Your task to perform on an android device: Search for vegetarian restaurants on Maps Image 0: 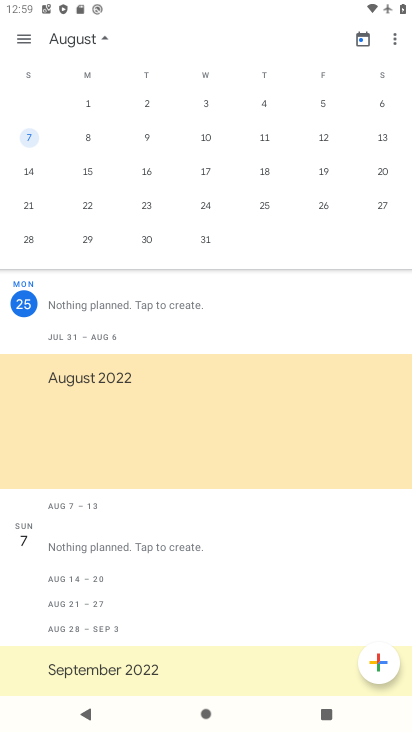
Step 0: press home button
Your task to perform on an android device: Search for vegetarian restaurants on Maps Image 1: 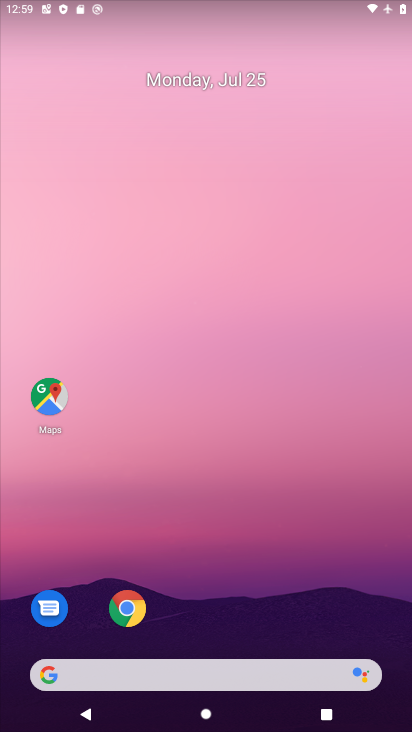
Step 1: drag from (253, 679) to (247, 219)
Your task to perform on an android device: Search for vegetarian restaurants on Maps Image 2: 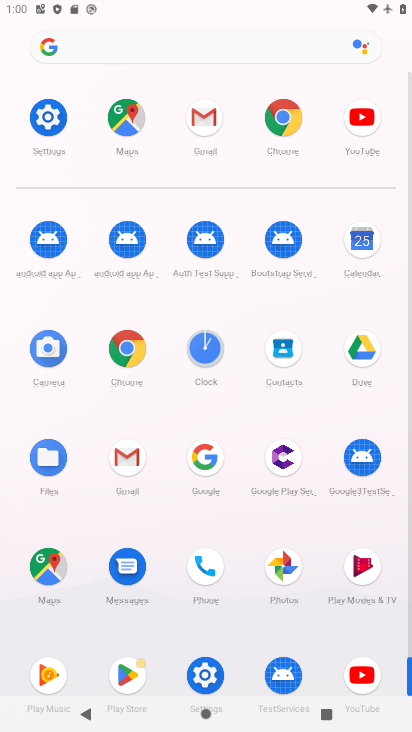
Step 2: click (57, 581)
Your task to perform on an android device: Search for vegetarian restaurants on Maps Image 3: 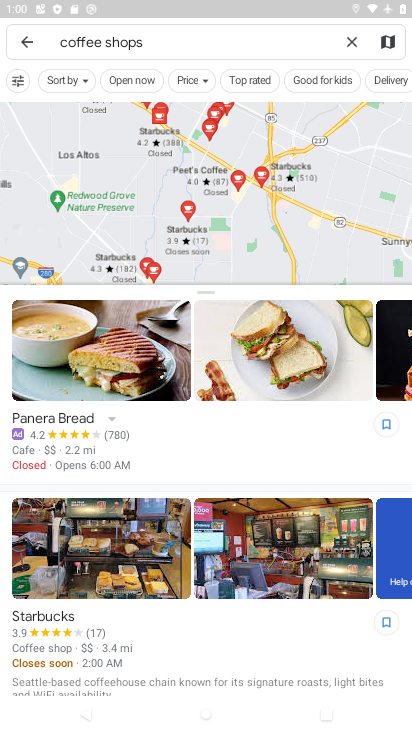
Step 3: click (356, 44)
Your task to perform on an android device: Search for vegetarian restaurants on Maps Image 4: 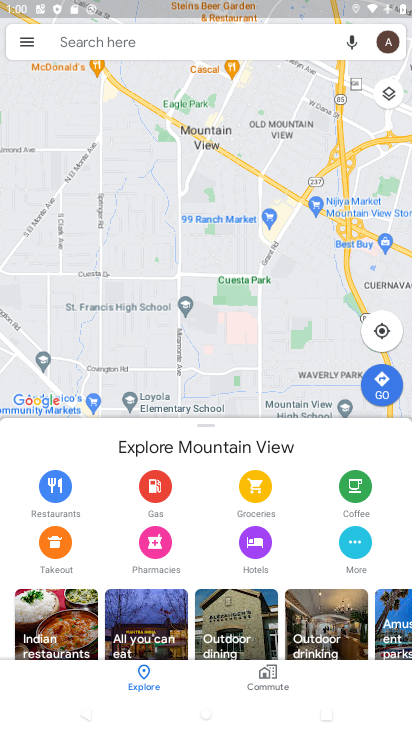
Step 4: click (208, 49)
Your task to perform on an android device: Search for vegetarian restaurants on Maps Image 5: 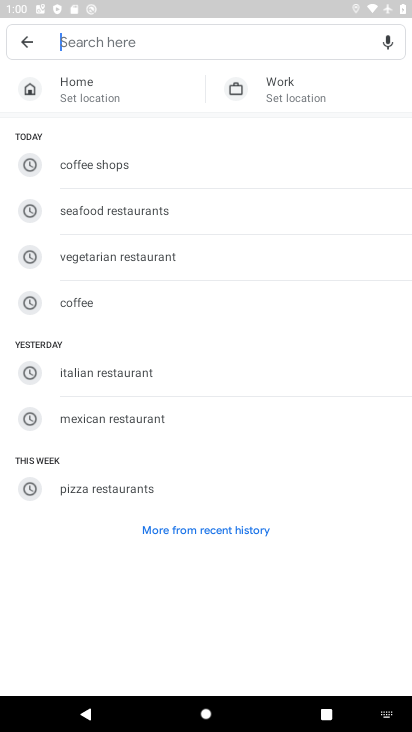
Step 5: click (151, 257)
Your task to perform on an android device: Search for vegetarian restaurants on Maps Image 6: 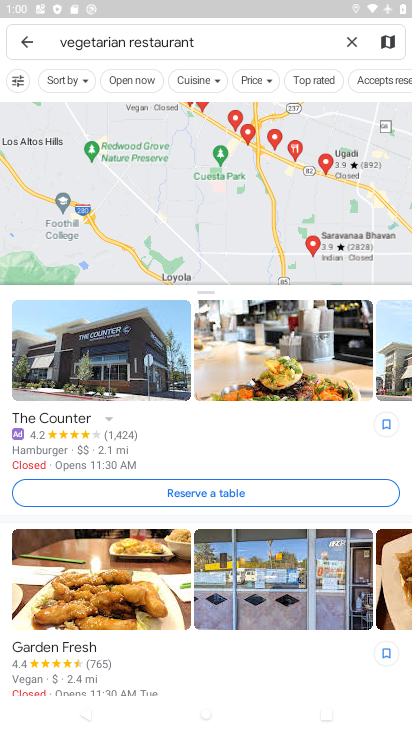
Step 6: task complete